Your task to perform on an android device: When is my next appointment? Image 0: 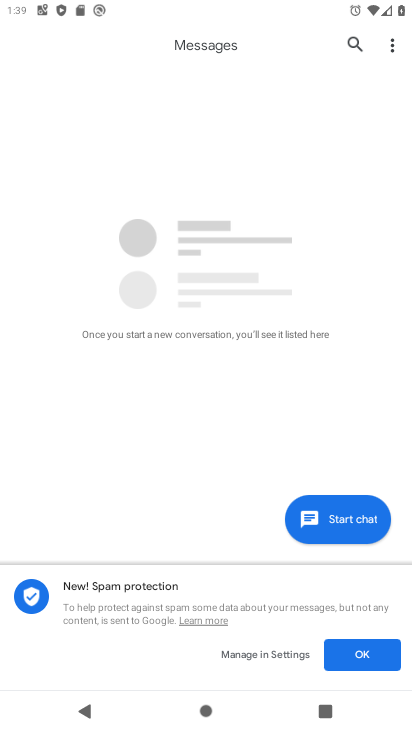
Step 0: press home button
Your task to perform on an android device: When is my next appointment? Image 1: 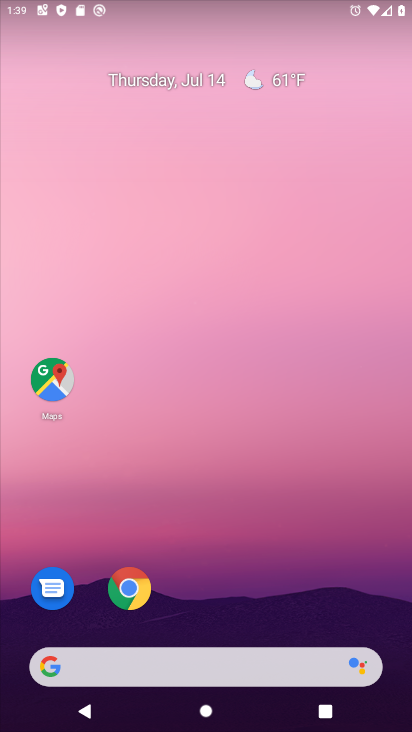
Step 1: drag from (221, 580) to (249, 204)
Your task to perform on an android device: When is my next appointment? Image 2: 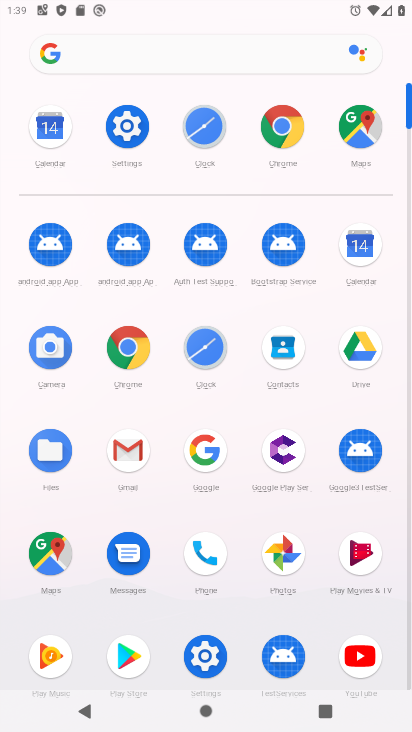
Step 2: click (368, 236)
Your task to perform on an android device: When is my next appointment? Image 3: 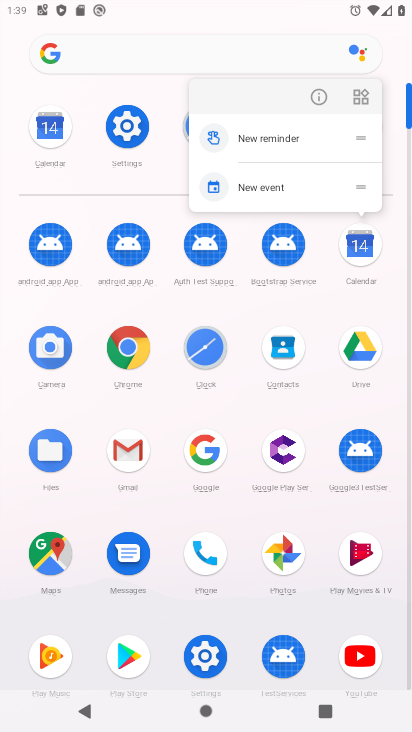
Step 3: click (366, 238)
Your task to perform on an android device: When is my next appointment? Image 4: 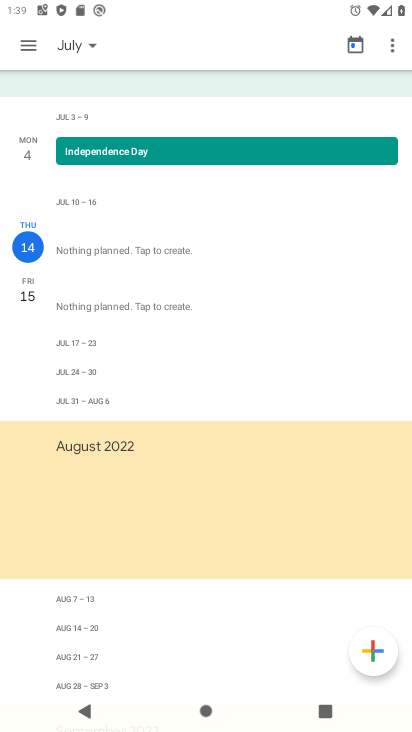
Step 4: task complete